Your task to perform on an android device: Open Chrome and go to the settings page Image 0: 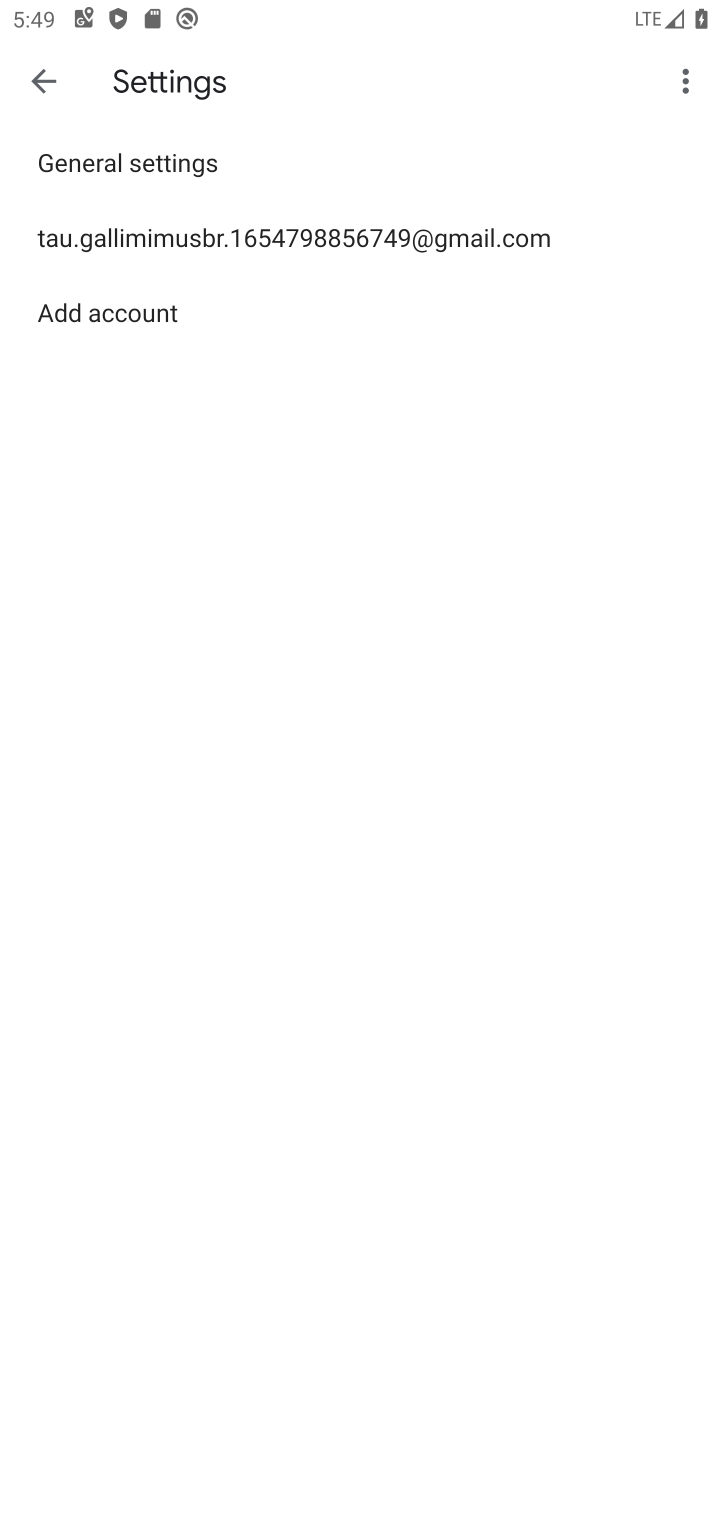
Step 0: press back button
Your task to perform on an android device: Open Chrome and go to the settings page Image 1: 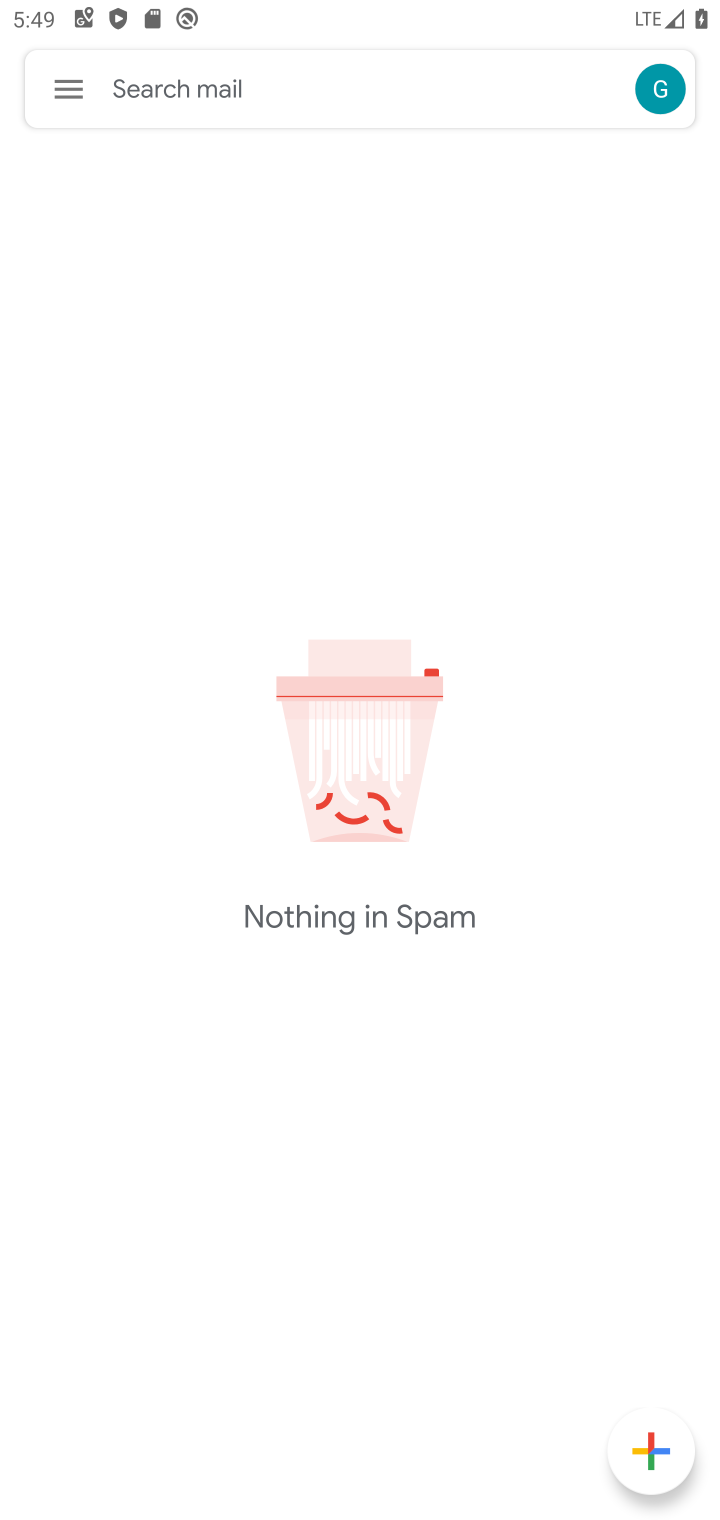
Step 1: press back button
Your task to perform on an android device: Open Chrome and go to the settings page Image 2: 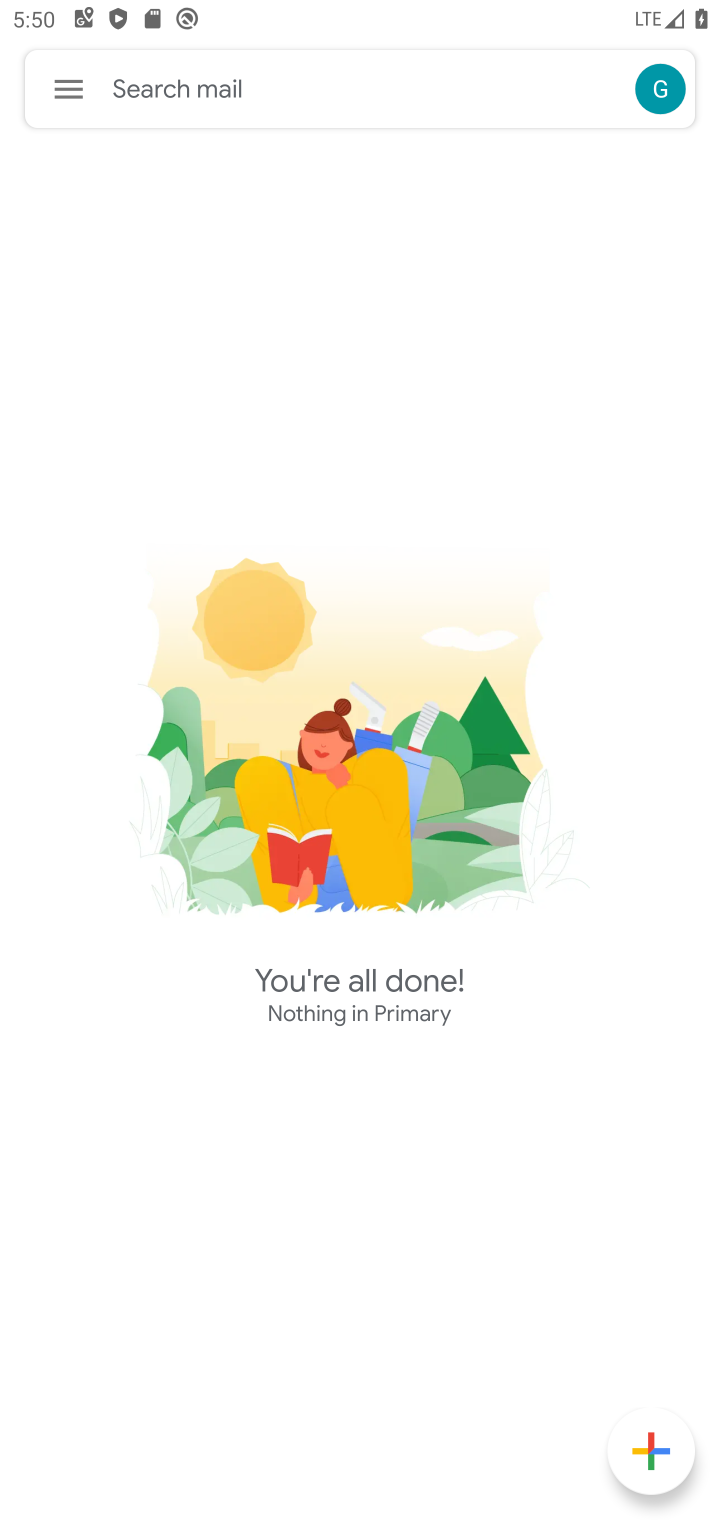
Step 2: press home button
Your task to perform on an android device: Open Chrome and go to the settings page Image 3: 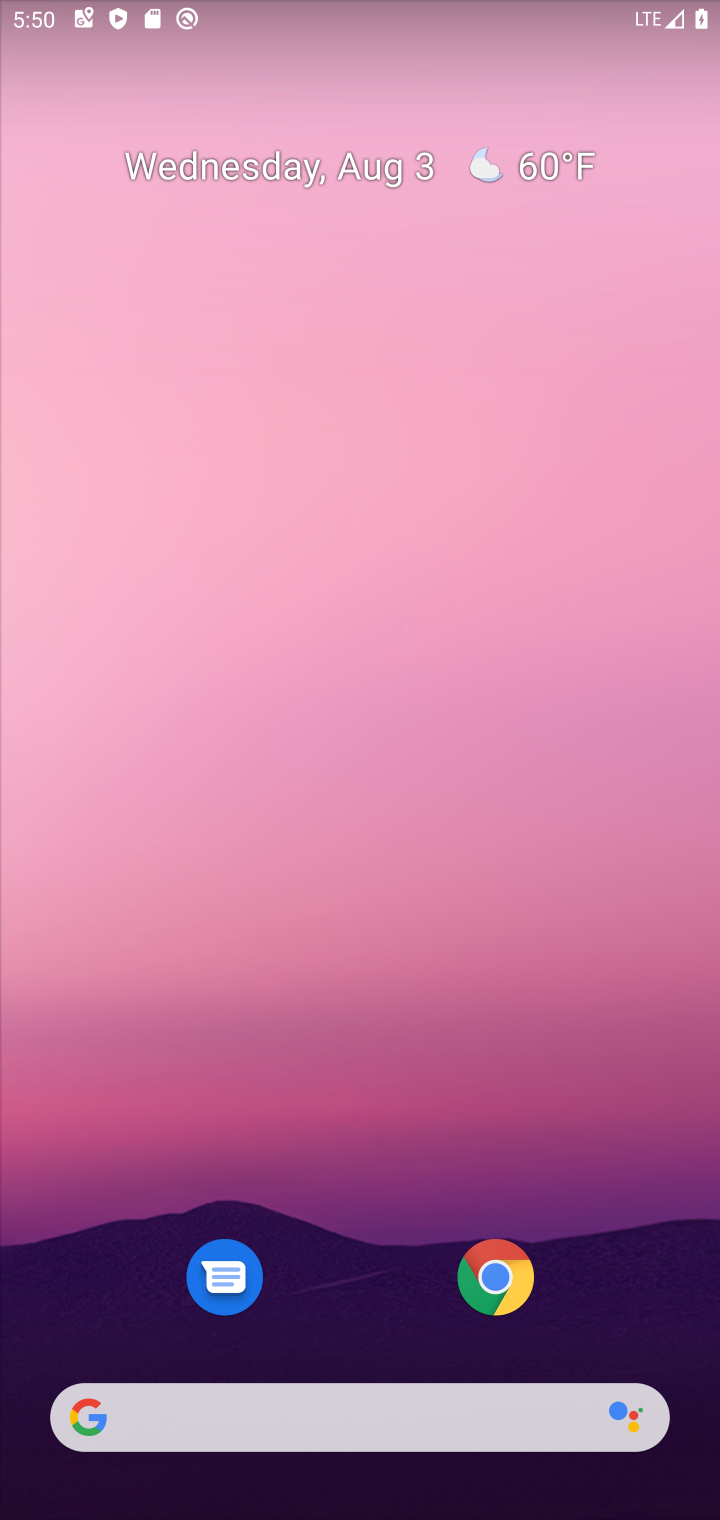
Step 3: click (510, 1264)
Your task to perform on an android device: Open Chrome and go to the settings page Image 4: 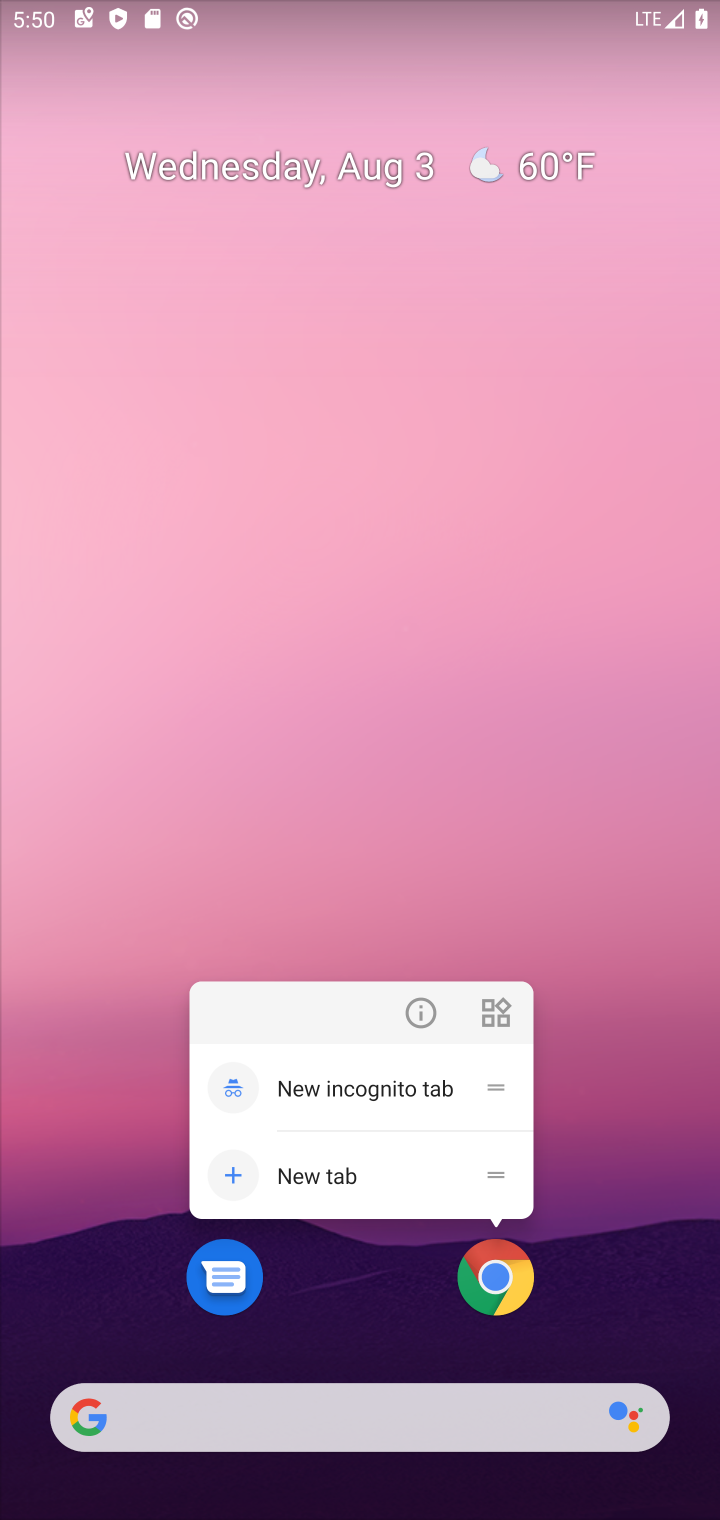
Step 4: click (523, 1265)
Your task to perform on an android device: Open Chrome and go to the settings page Image 5: 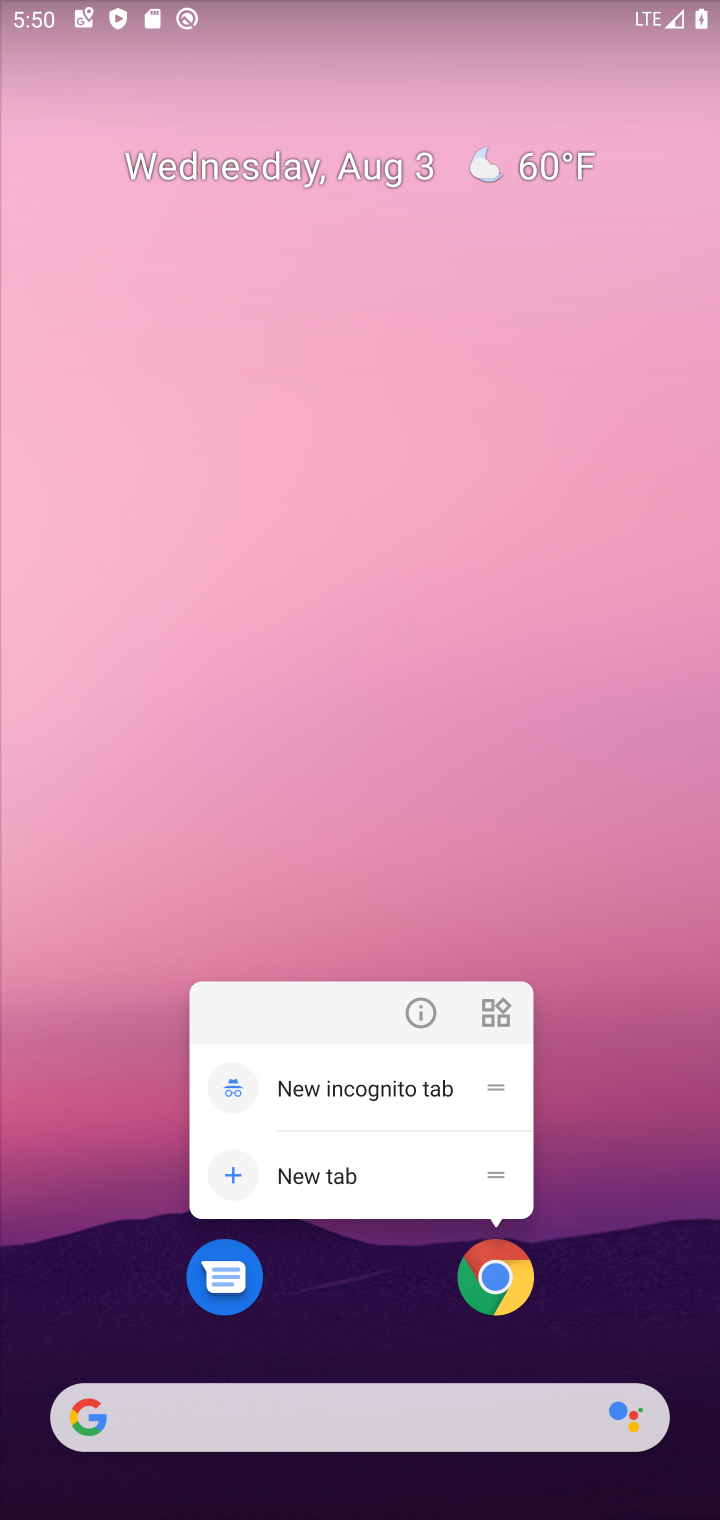
Step 5: click (508, 1269)
Your task to perform on an android device: Open Chrome and go to the settings page Image 6: 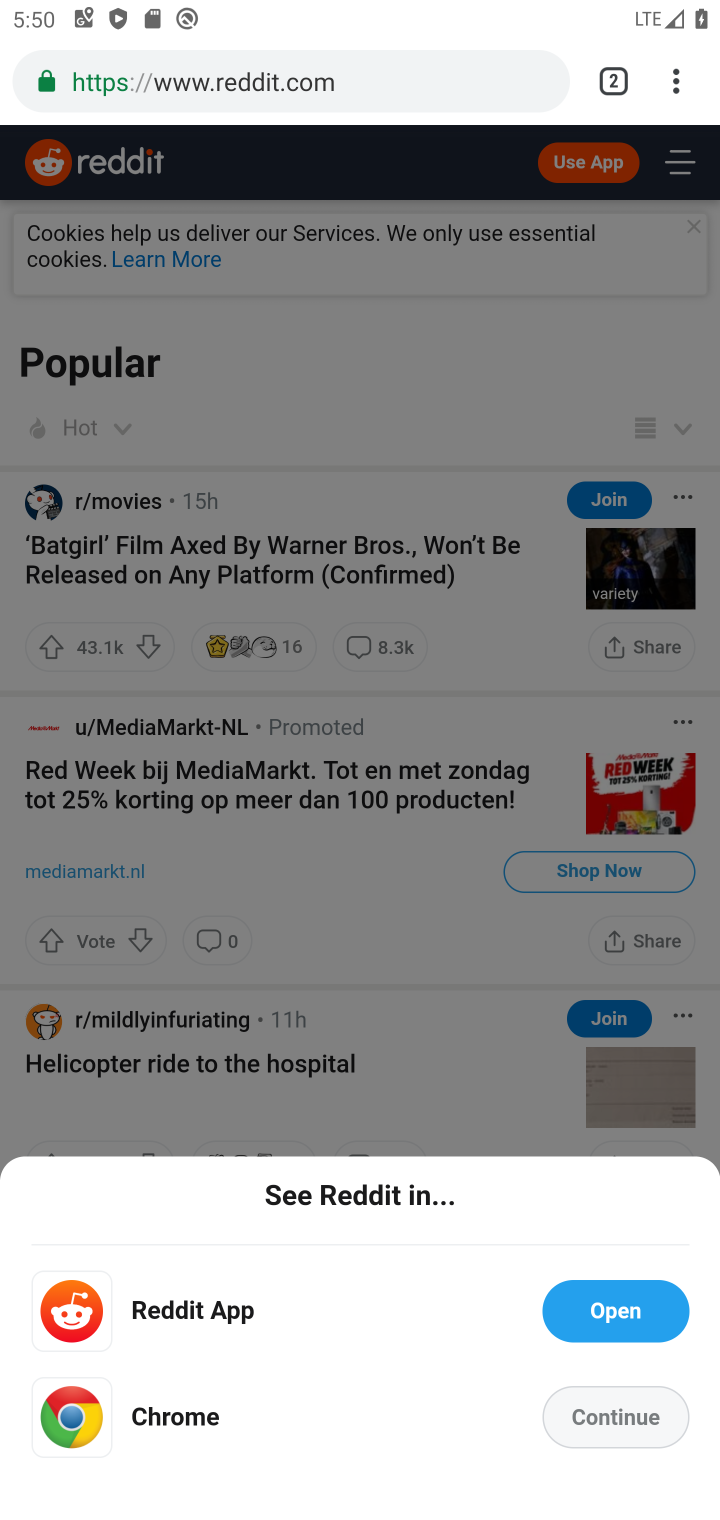
Step 6: task complete